Your task to perform on an android device: turn on the 12-hour format for clock Image 0: 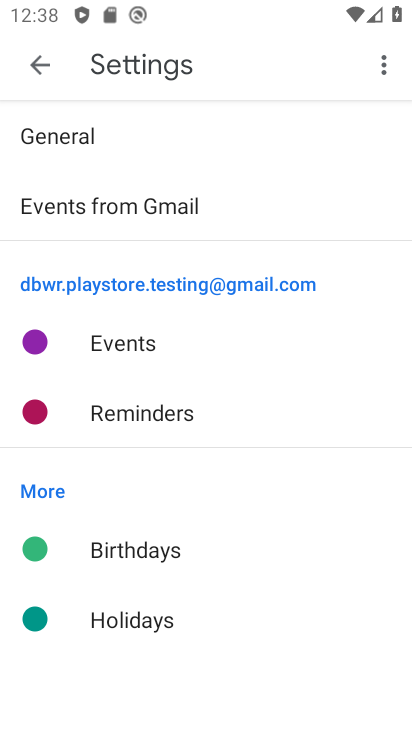
Step 0: press home button
Your task to perform on an android device: turn on the 12-hour format for clock Image 1: 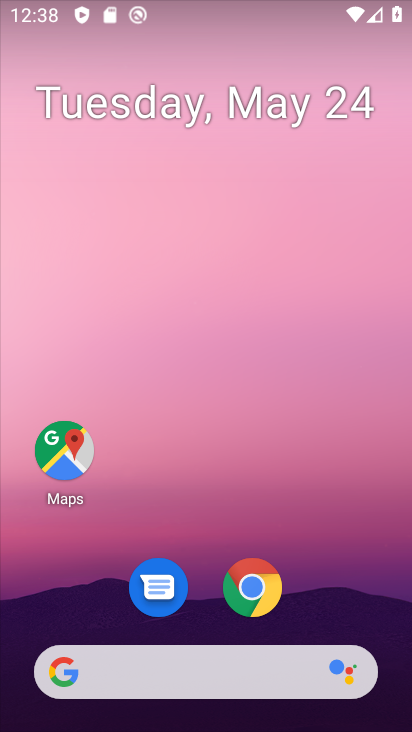
Step 1: drag from (184, 654) to (207, 25)
Your task to perform on an android device: turn on the 12-hour format for clock Image 2: 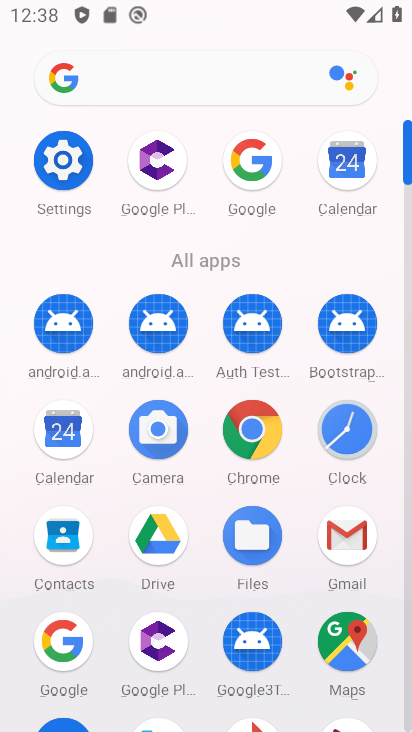
Step 2: click (81, 167)
Your task to perform on an android device: turn on the 12-hour format for clock Image 3: 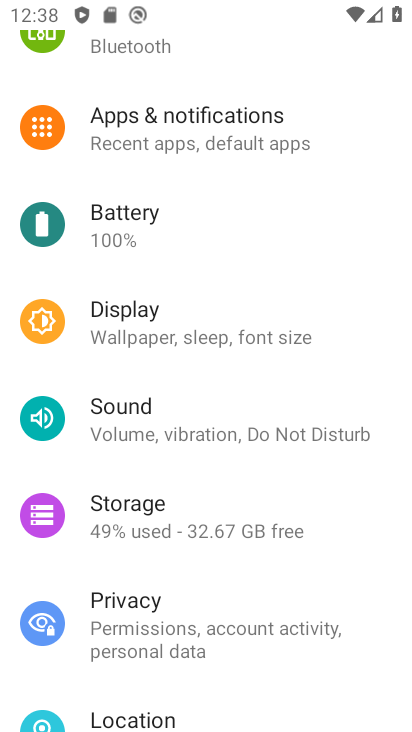
Step 3: drag from (213, 621) to (231, 5)
Your task to perform on an android device: turn on the 12-hour format for clock Image 4: 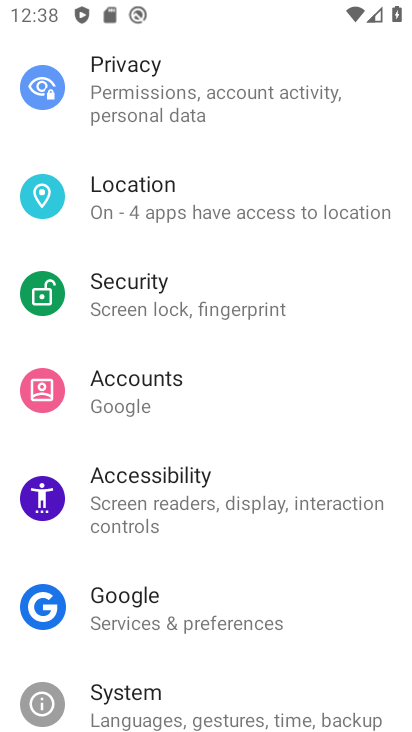
Step 4: click (175, 699)
Your task to perform on an android device: turn on the 12-hour format for clock Image 5: 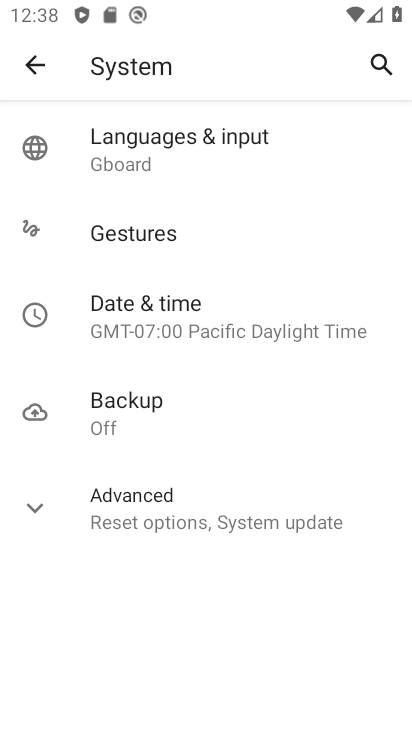
Step 5: click (200, 303)
Your task to perform on an android device: turn on the 12-hour format for clock Image 6: 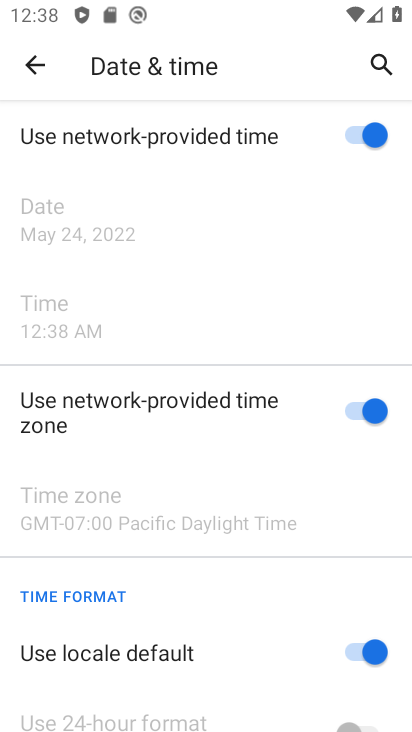
Step 6: task complete